Your task to perform on an android device: Open Amazon Image 0: 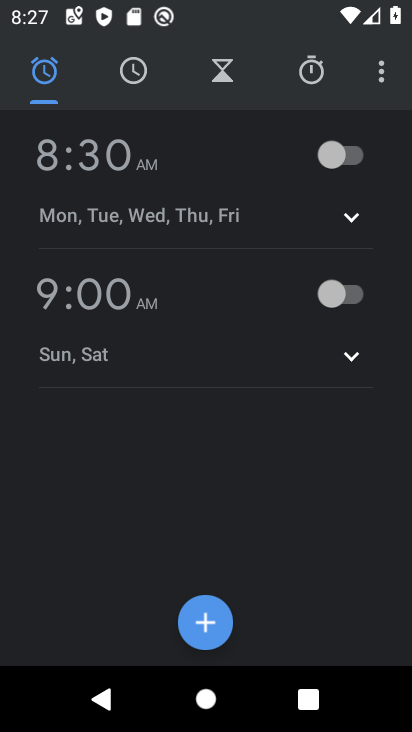
Step 0: press home button
Your task to perform on an android device: Open Amazon Image 1: 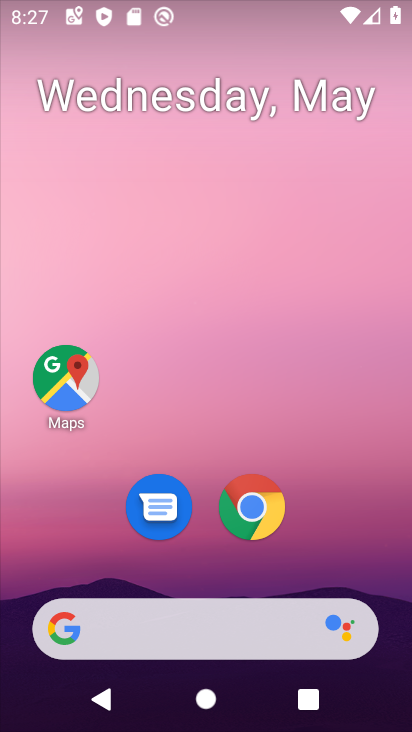
Step 1: click (266, 494)
Your task to perform on an android device: Open Amazon Image 2: 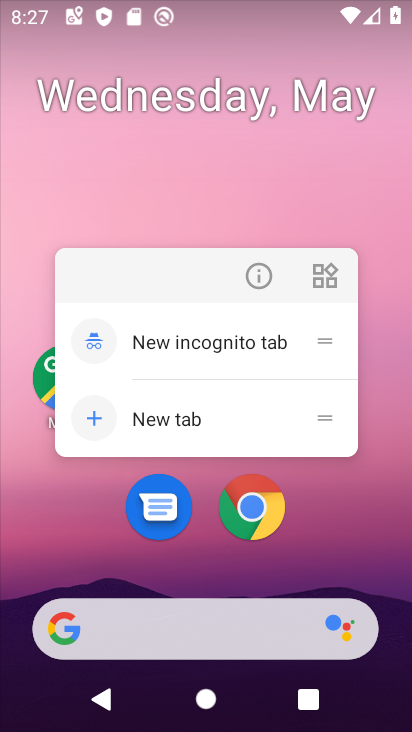
Step 2: click (272, 504)
Your task to perform on an android device: Open Amazon Image 3: 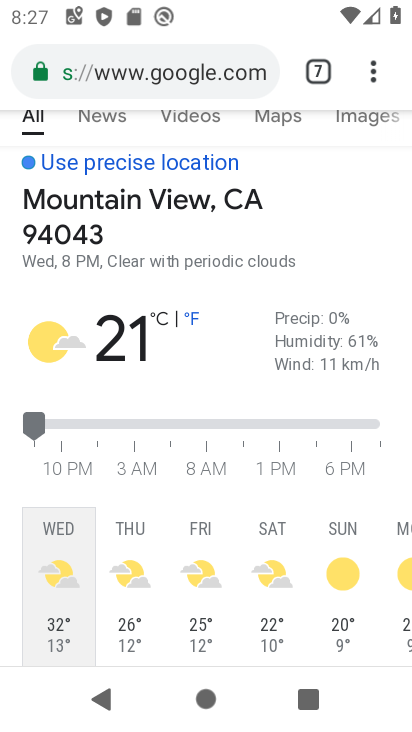
Step 3: click (368, 68)
Your task to perform on an android device: Open Amazon Image 4: 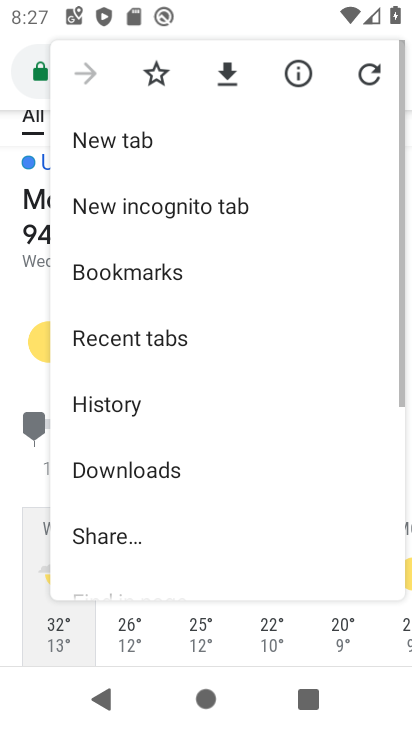
Step 4: click (152, 144)
Your task to perform on an android device: Open Amazon Image 5: 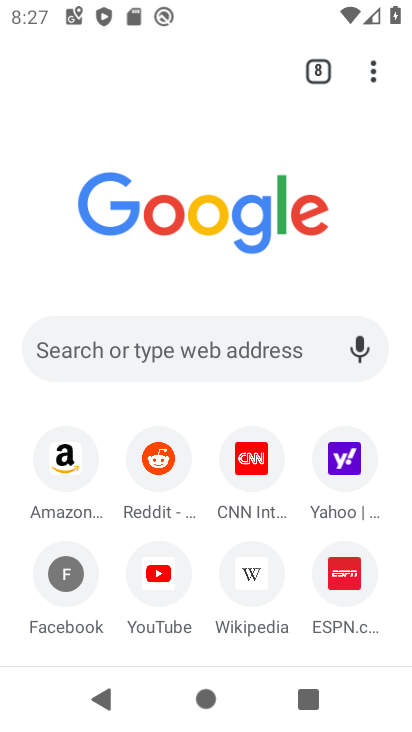
Step 5: click (68, 449)
Your task to perform on an android device: Open Amazon Image 6: 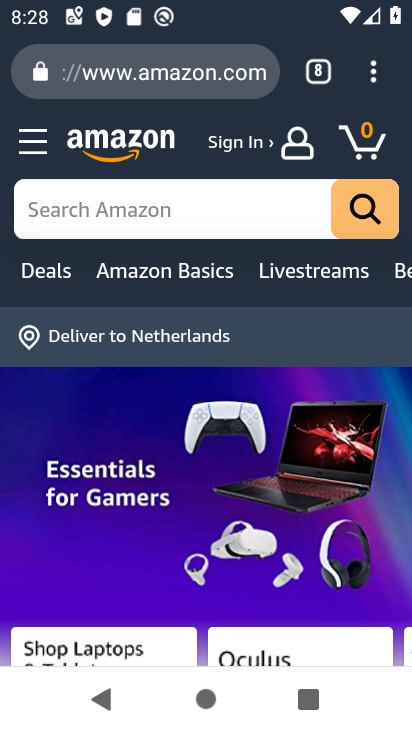
Step 6: task complete